Your task to perform on an android device: Is it going to rain tomorrow? Image 0: 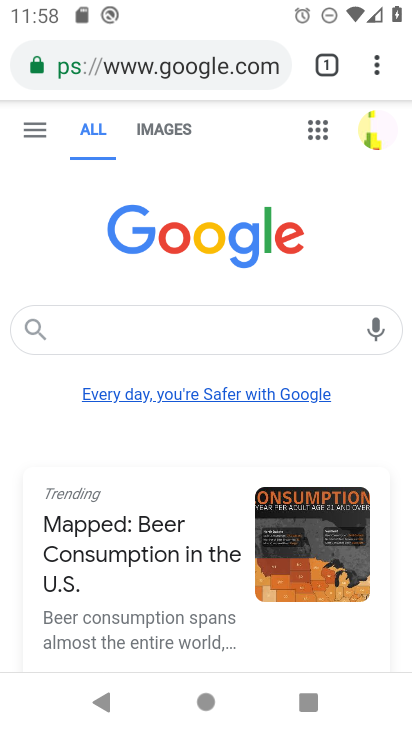
Step 0: press home button
Your task to perform on an android device: Is it going to rain tomorrow? Image 1: 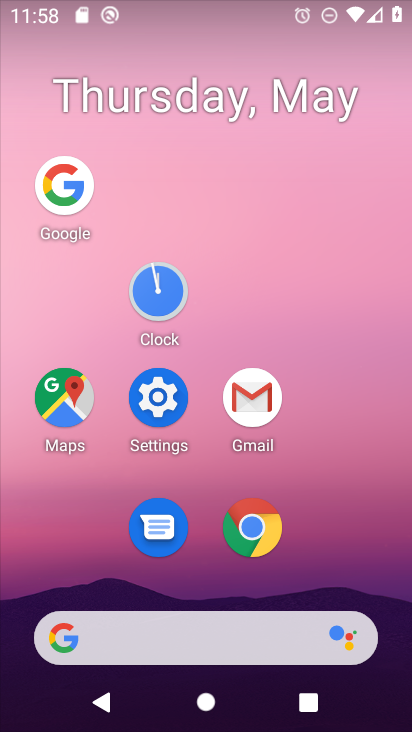
Step 1: click (221, 655)
Your task to perform on an android device: Is it going to rain tomorrow? Image 2: 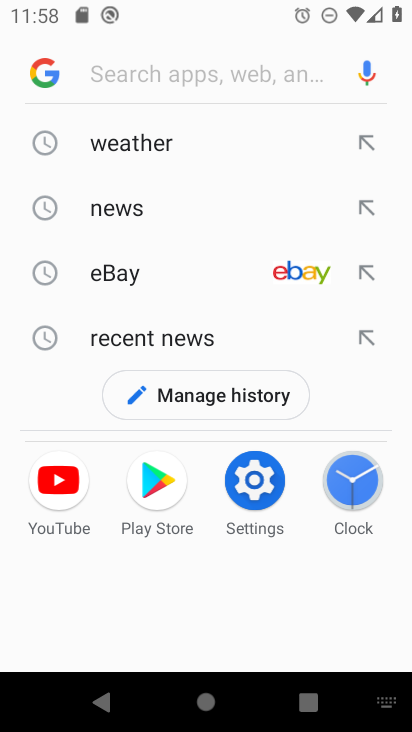
Step 2: click (213, 126)
Your task to perform on an android device: Is it going to rain tomorrow? Image 3: 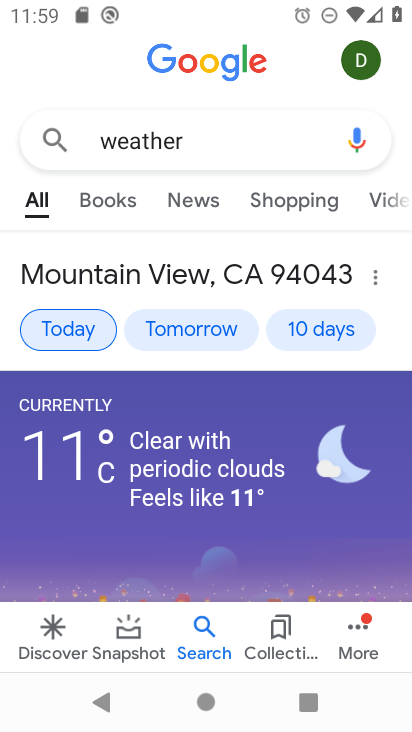
Step 3: click (306, 343)
Your task to perform on an android device: Is it going to rain tomorrow? Image 4: 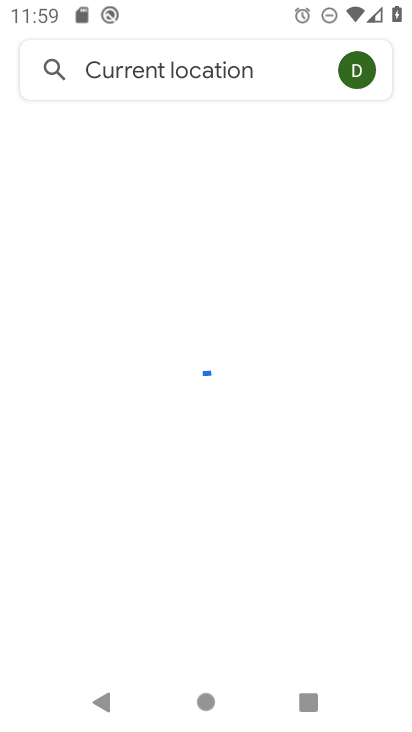
Step 4: task complete